Your task to perform on an android device: Do I have any events this weekend? Image 0: 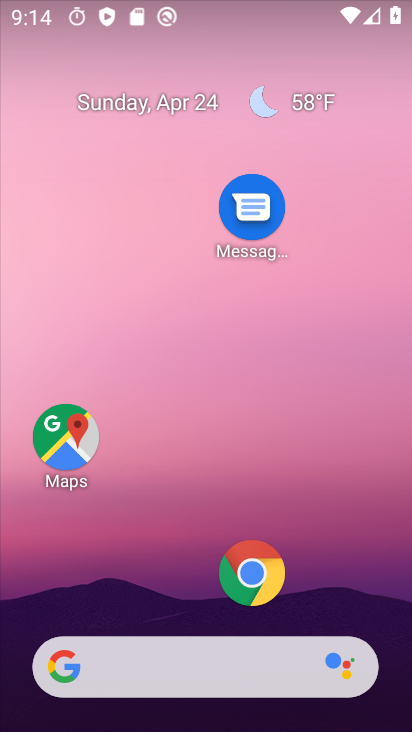
Step 0: drag from (174, 606) to (297, 4)
Your task to perform on an android device: Do I have any events this weekend? Image 1: 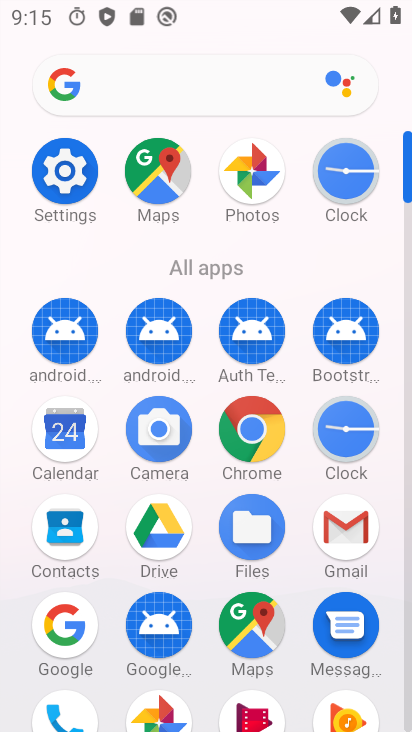
Step 1: click (77, 440)
Your task to perform on an android device: Do I have any events this weekend? Image 2: 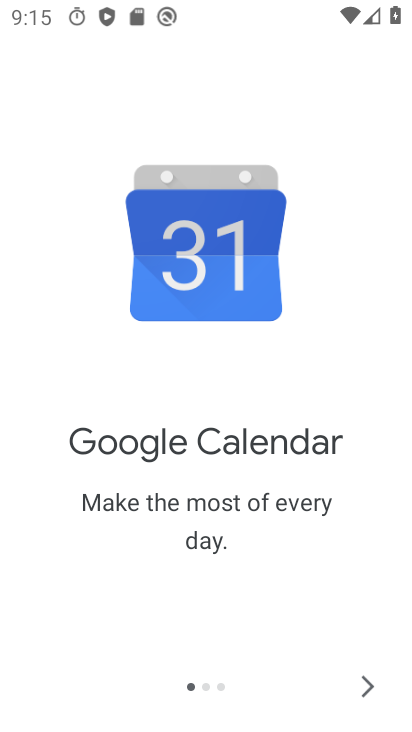
Step 2: click (363, 674)
Your task to perform on an android device: Do I have any events this weekend? Image 3: 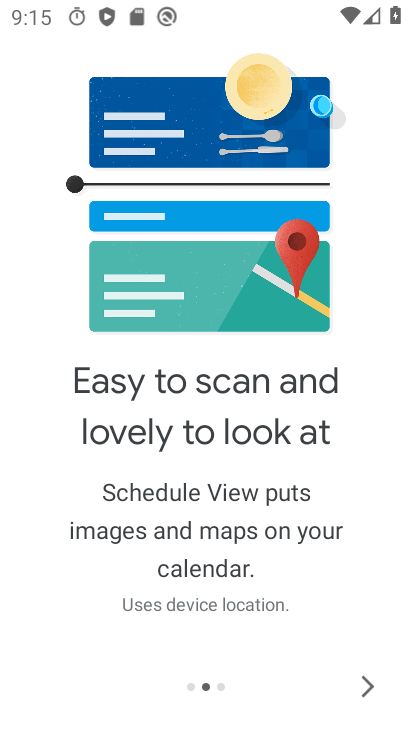
Step 3: click (366, 671)
Your task to perform on an android device: Do I have any events this weekend? Image 4: 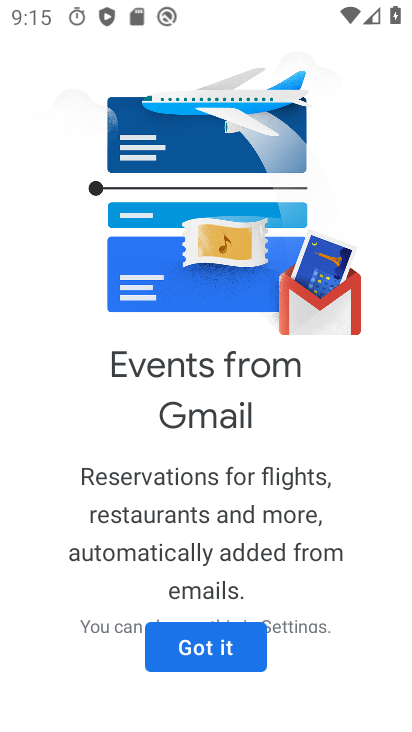
Step 4: click (207, 644)
Your task to perform on an android device: Do I have any events this weekend? Image 5: 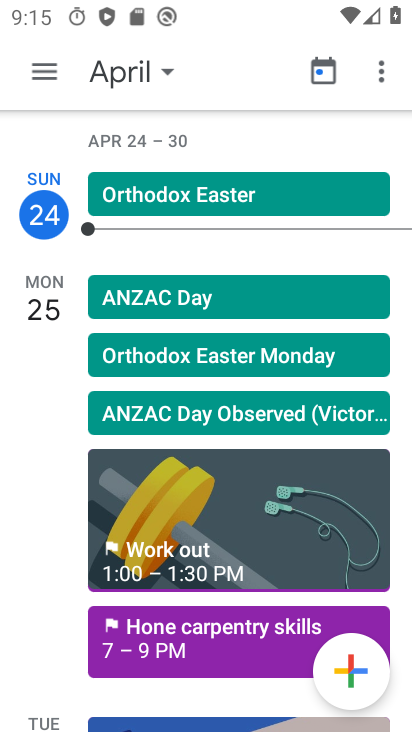
Step 5: click (58, 68)
Your task to perform on an android device: Do I have any events this weekend? Image 6: 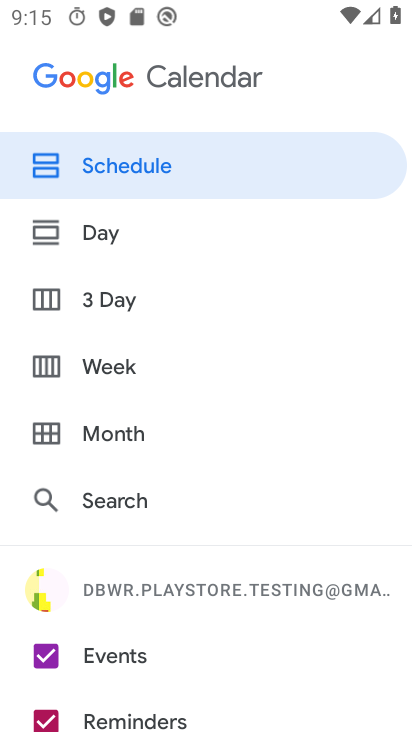
Step 6: drag from (119, 674) to (204, 213)
Your task to perform on an android device: Do I have any events this weekend? Image 7: 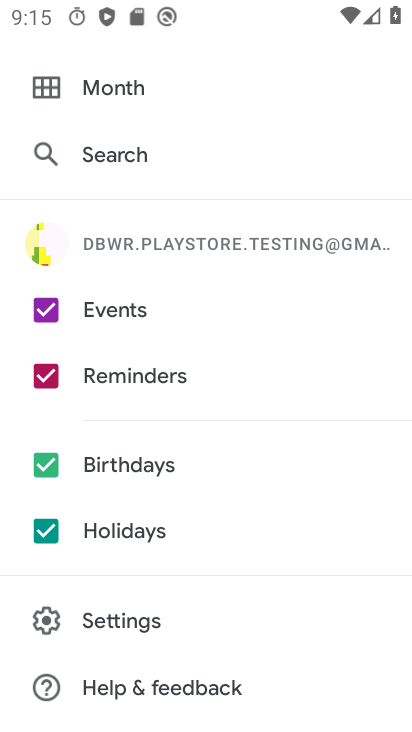
Step 7: click (44, 379)
Your task to perform on an android device: Do I have any events this weekend? Image 8: 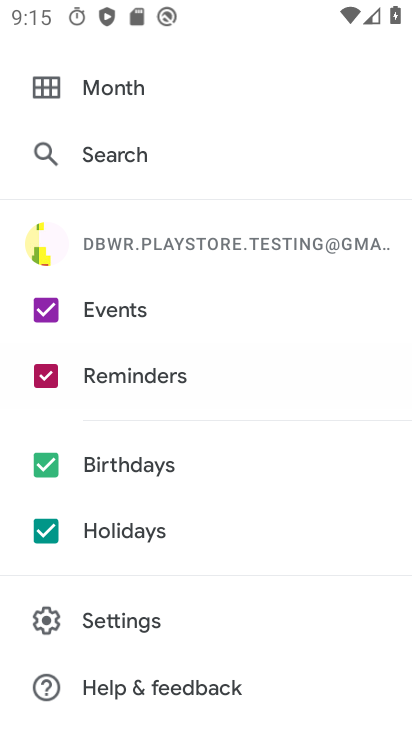
Step 8: click (41, 475)
Your task to perform on an android device: Do I have any events this weekend? Image 9: 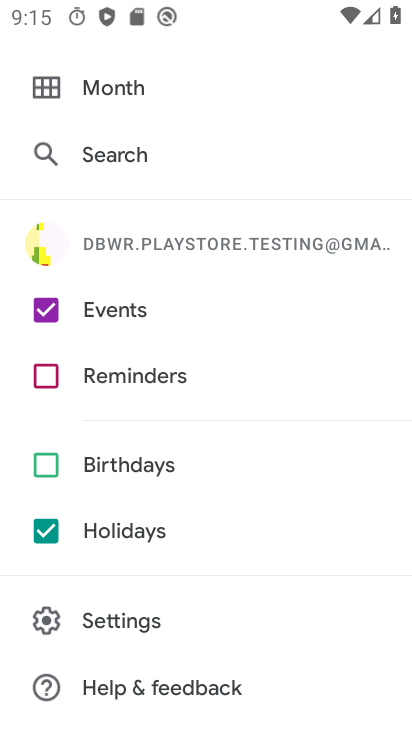
Step 9: click (99, 530)
Your task to perform on an android device: Do I have any events this weekend? Image 10: 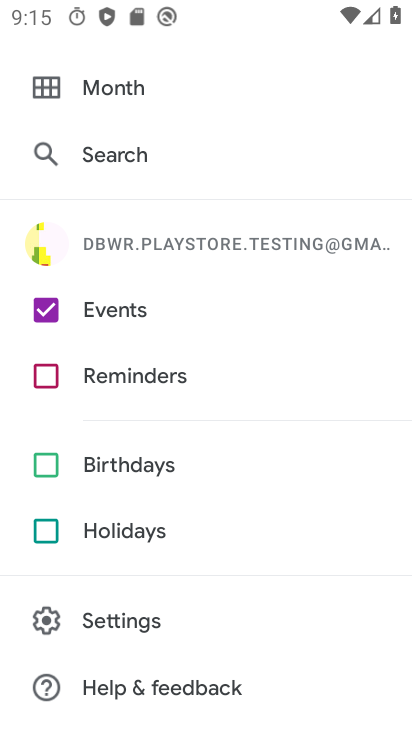
Step 10: drag from (199, 283) to (142, 666)
Your task to perform on an android device: Do I have any events this weekend? Image 11: 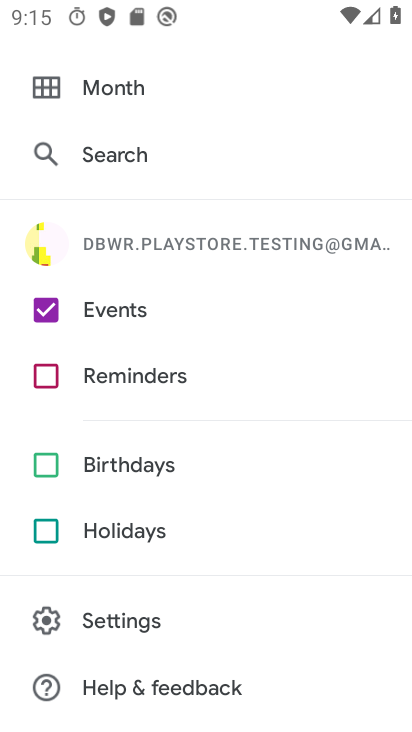
Step 11: drag from (171, 198) to (171, 709)
Your task to perform on an android device: Do I have any events this weekend? Image 12: 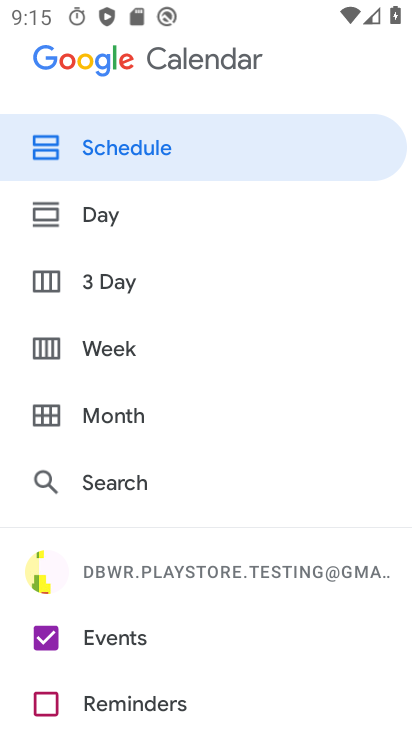
Step 12: click (117, 345)
Your task to perform on an android device: Do I have any events this weekend? Image 13: 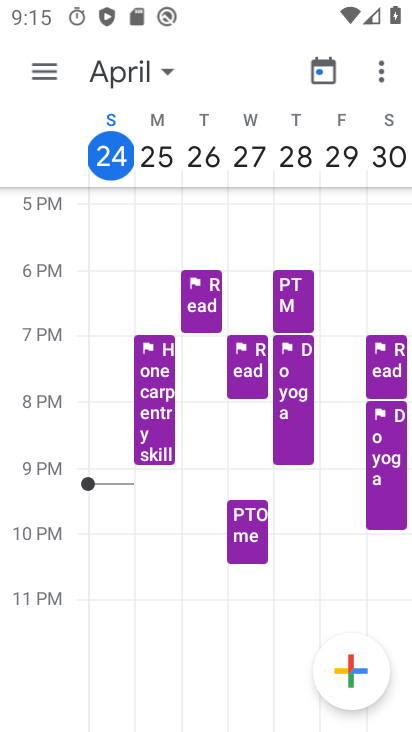
Step 13: task complete